Your task to perform on an android device: Open Google Chrome and open the bookmarks view Image 0: 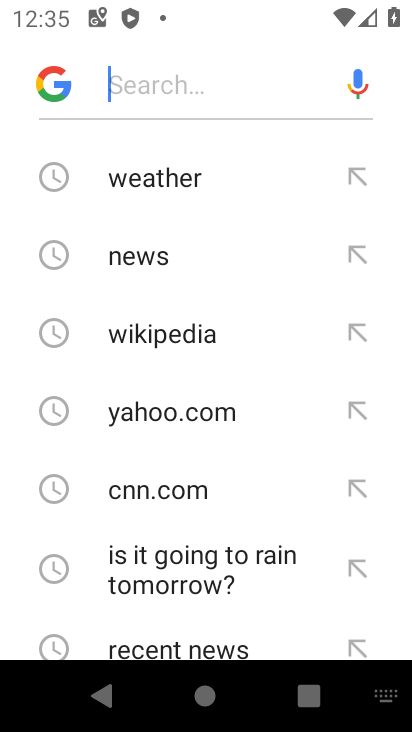
Step 0: press back button
Your task to perform on an android device: Open Google Chrome and open the bookmarks view Image 1: 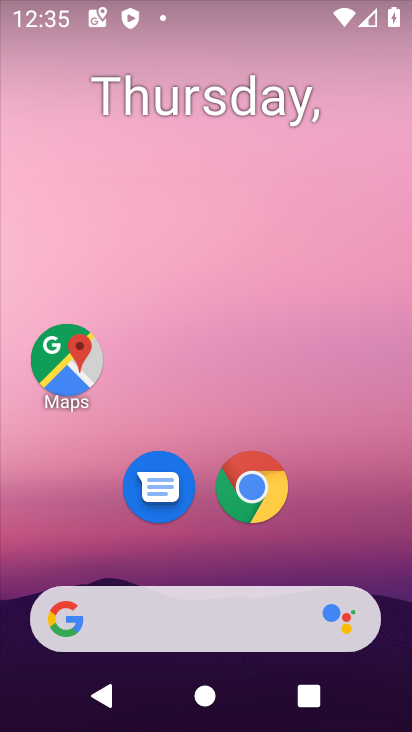
Step 1: drag from (389, 549) to (366, 66)
Your task to perform on an android device: Open Google Chrome and open the bookmarks view Image 2: 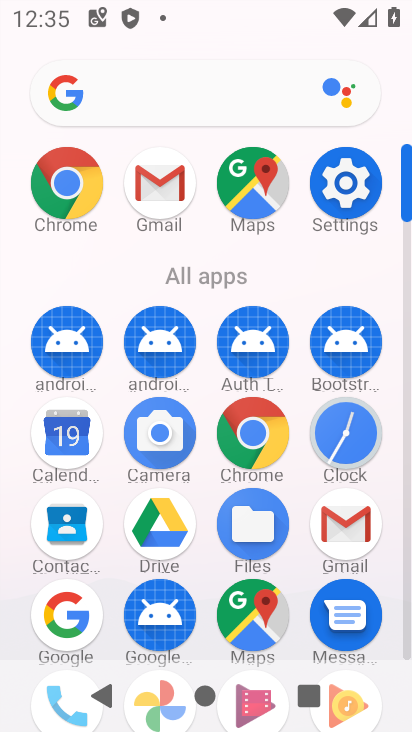
Step 2: click (78, 199)
Your task to perform on an android device: Open Google Chrome and open the bookmarks view Image 3: 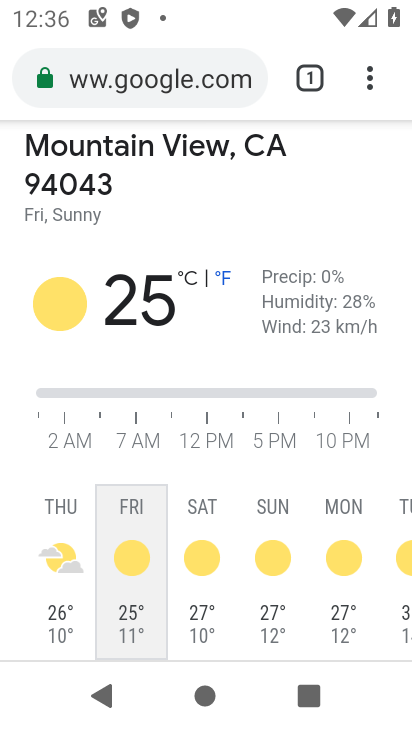
Step 3: click (382, 83)
Your task to perform on an android device: Open Google Chrome and open the bookmarks view Image 4: 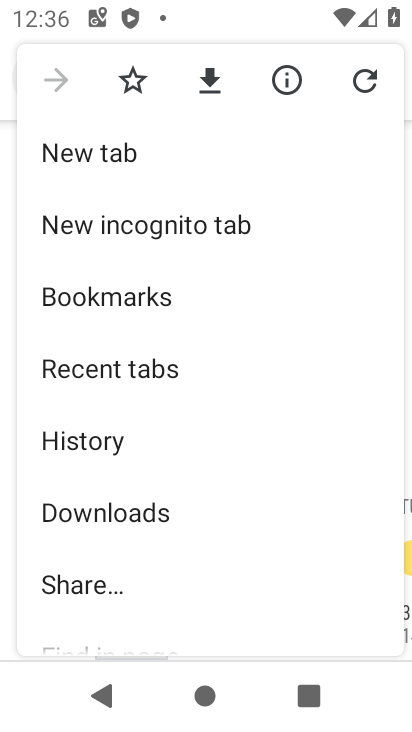
Step 4: click (247, 291)
Your task to perform on an android device: Open Google Chrome and open the bookmarks view Image 5: 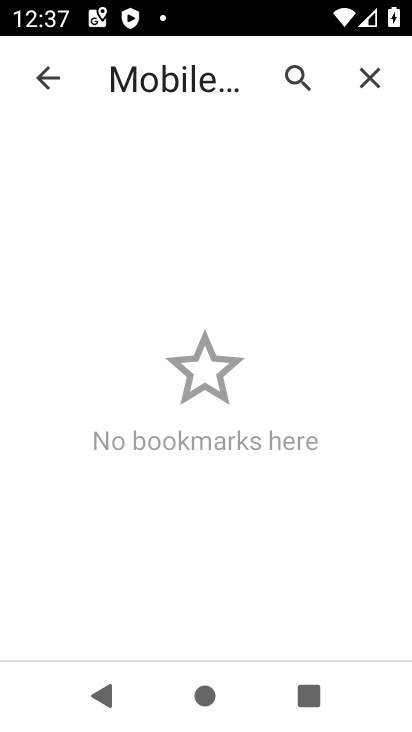
Step 5: task complete